Your task to perform on an android device: Show me recent news Image 0: 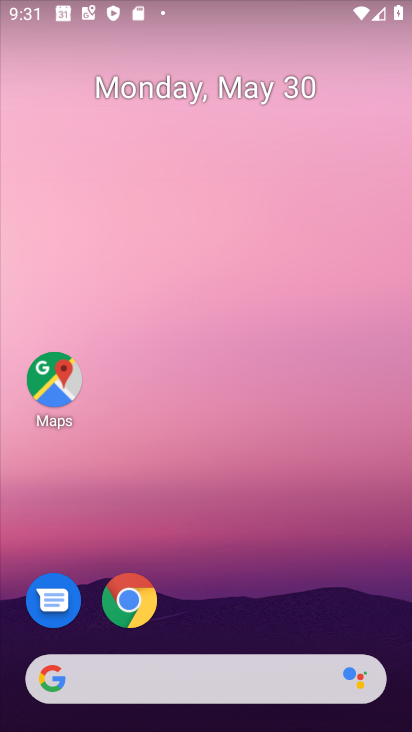
Step 0: press home button
Your task to perform on an android device: Show me recent news Image 1: 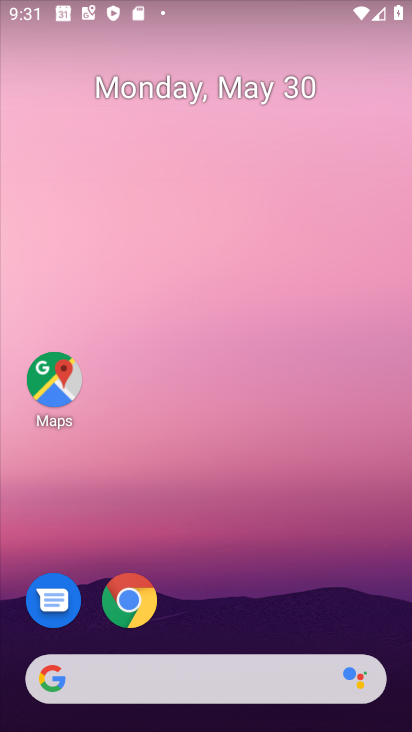
Step 1: click (47, 681)
Your task to perform on an android device: Show me recent news Image 2: 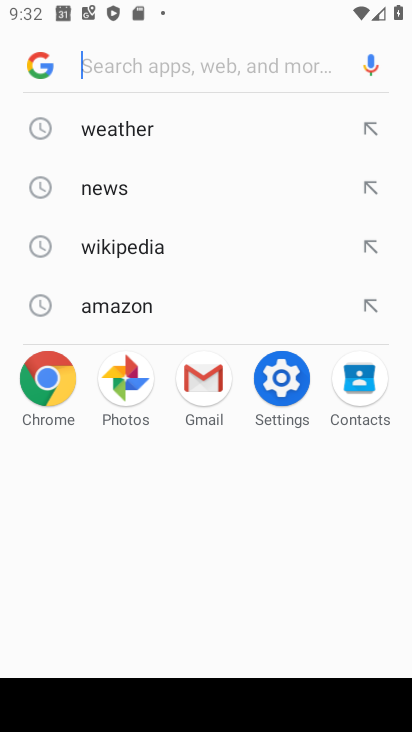
Step 2: type "recent news"
Your task to perform on an android device: Show me recent news Image 3: 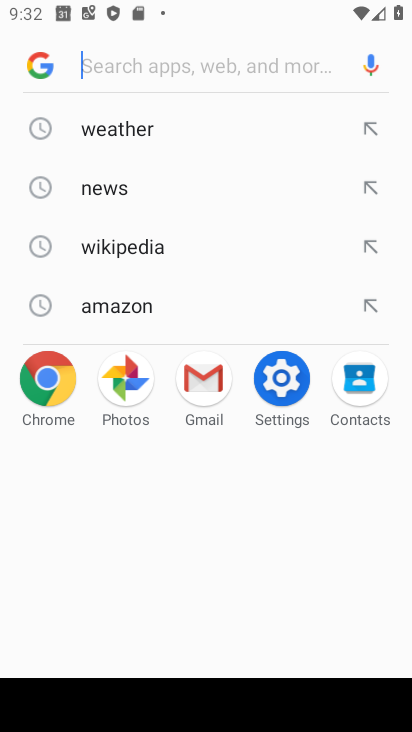
Step 3: click (211, 67)
Your task to perform on an android device: Show me recent news Image 4: 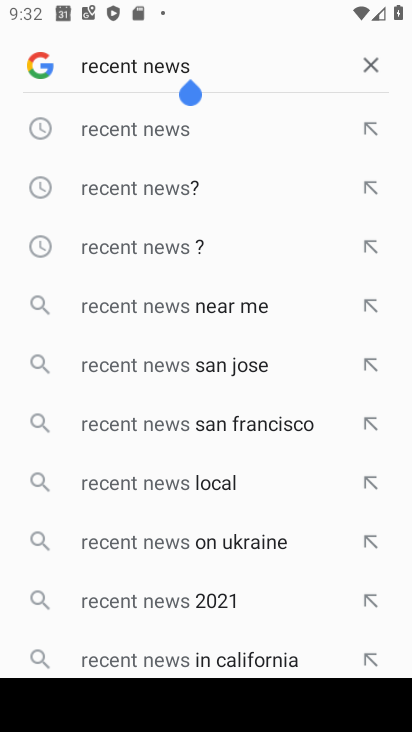
Step 4: click (145, 133)
Your task to perform on an android device: Show me recent news Image 5: 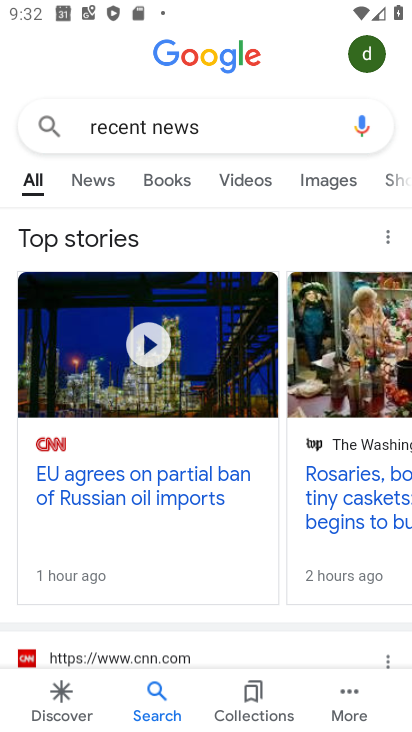
Step 5: task complete